Your task to perform on an android device: Search for the best rated lawnmower on Lowes.com Image 0: 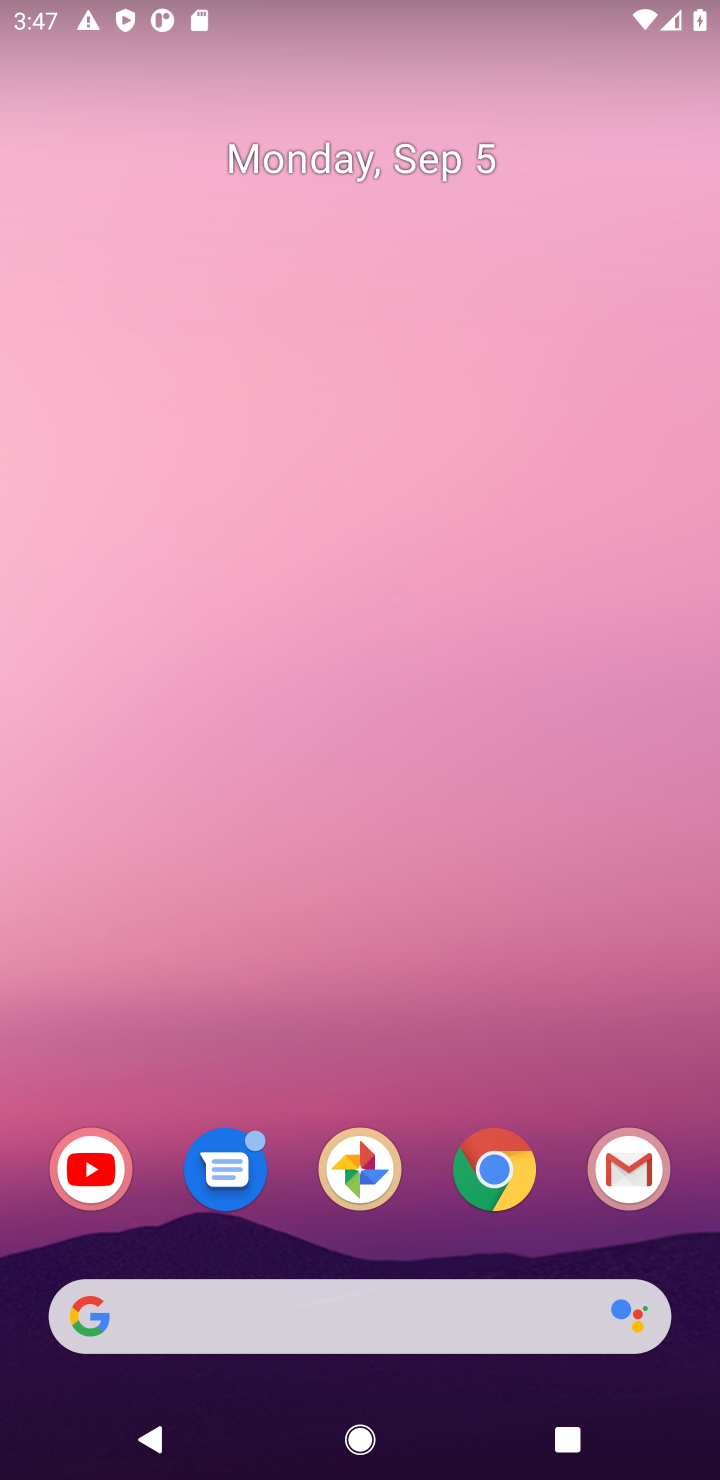
Step 0: click (500, 1188)
Your task to perform on an android device: Search for the best rated lawnmower on Lowes.com Image 1: 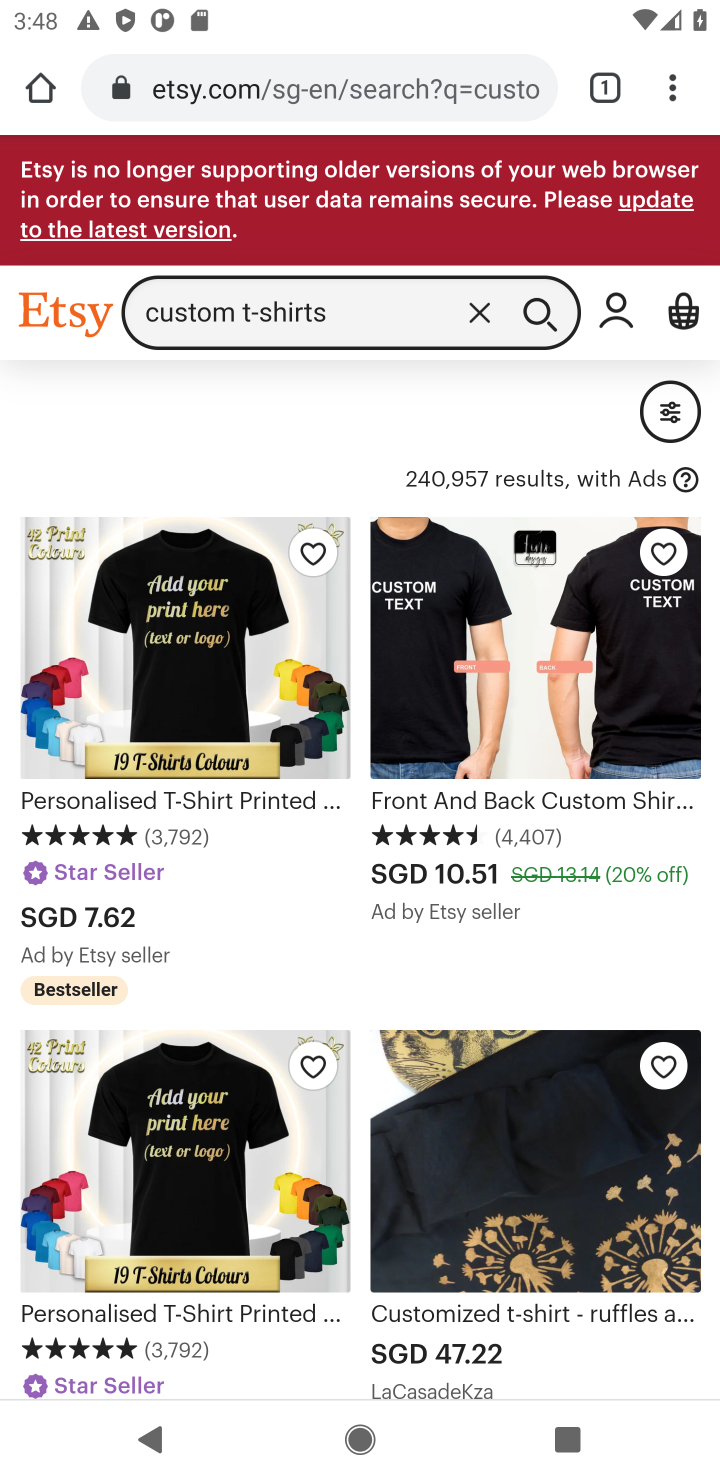
Step 1: click (377, 96)
Your task to perform on an android device: Search for the best rated lawnmower on Lowes.com Image 2: 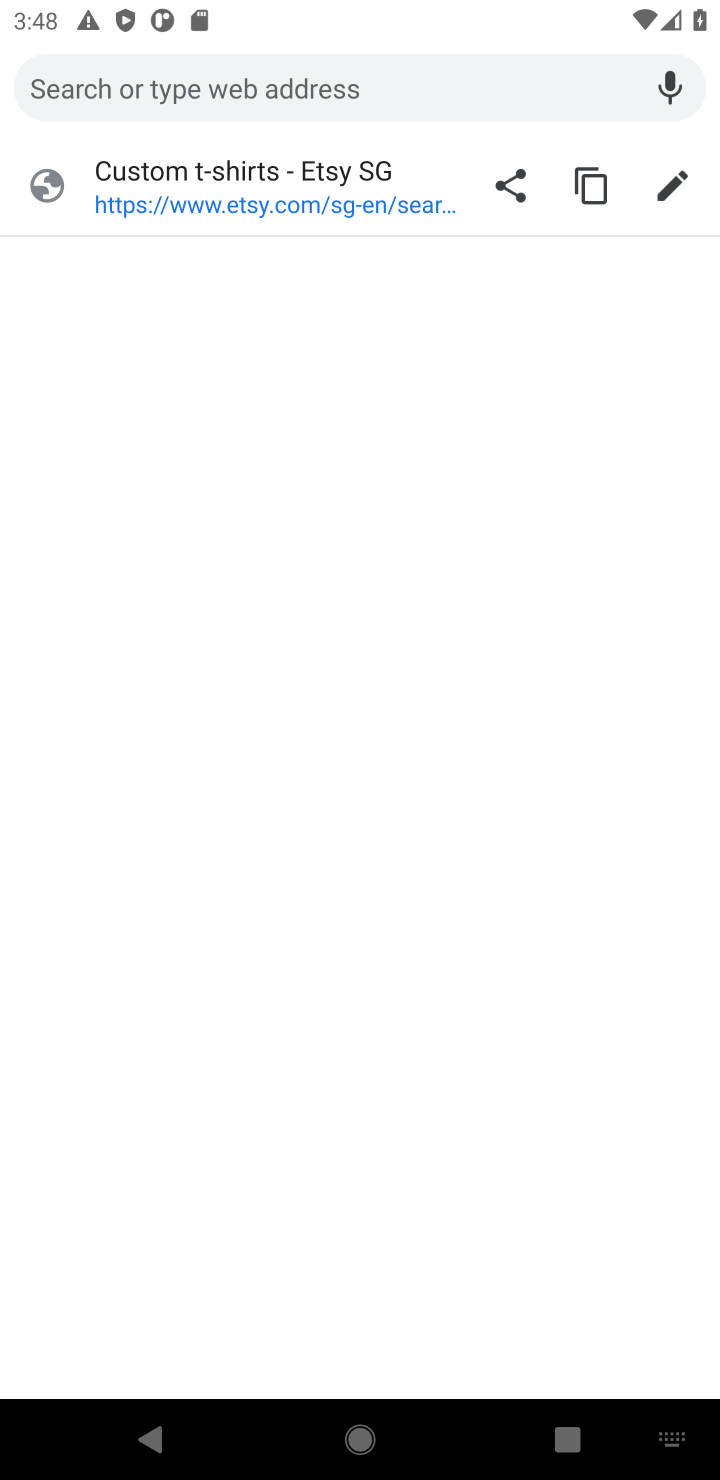
Step 2: type " Lowes.com"
Your task to perform on an android device: Search for the best rated lawnmower on Lowes.com Image 3: 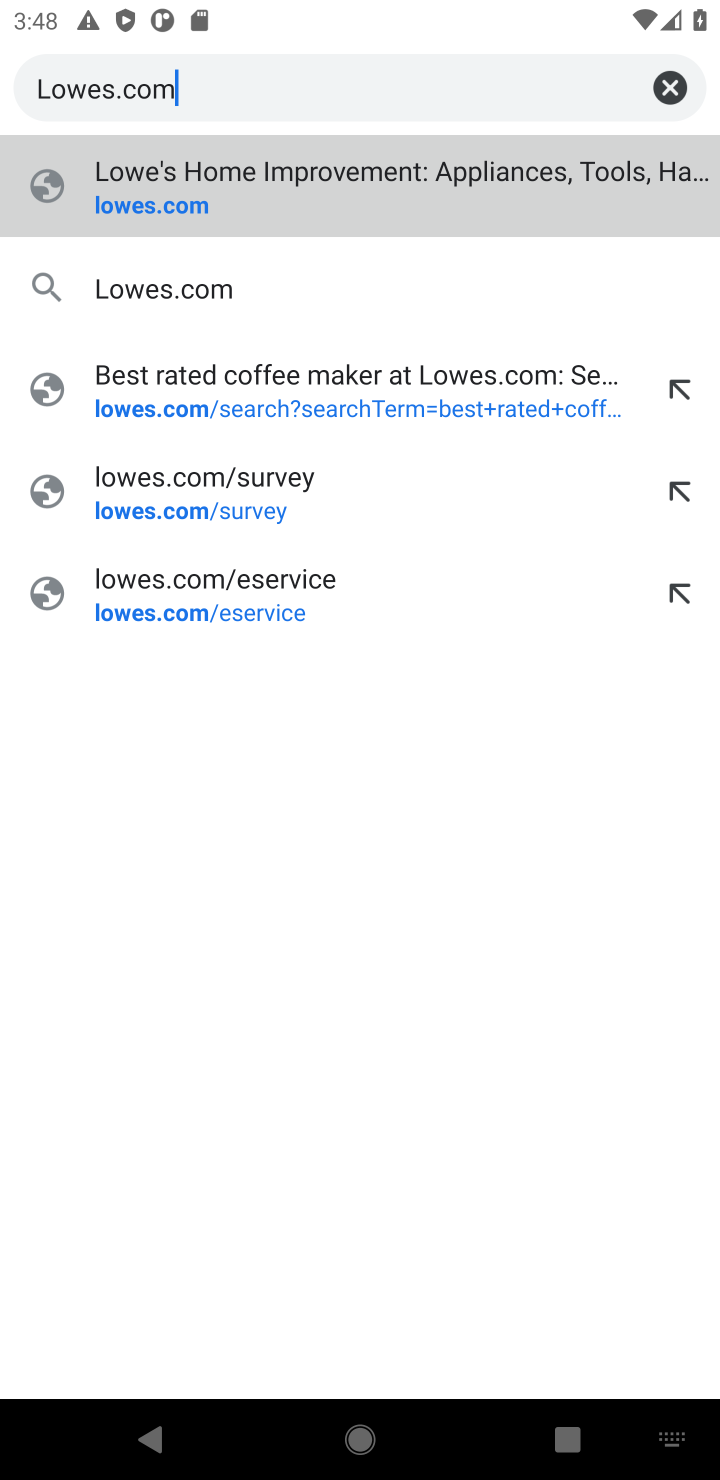
Step 3: click (176, 290)
Your task to perform on an android device: Search for the best rated lawnmower on Lowes.com Image 4: 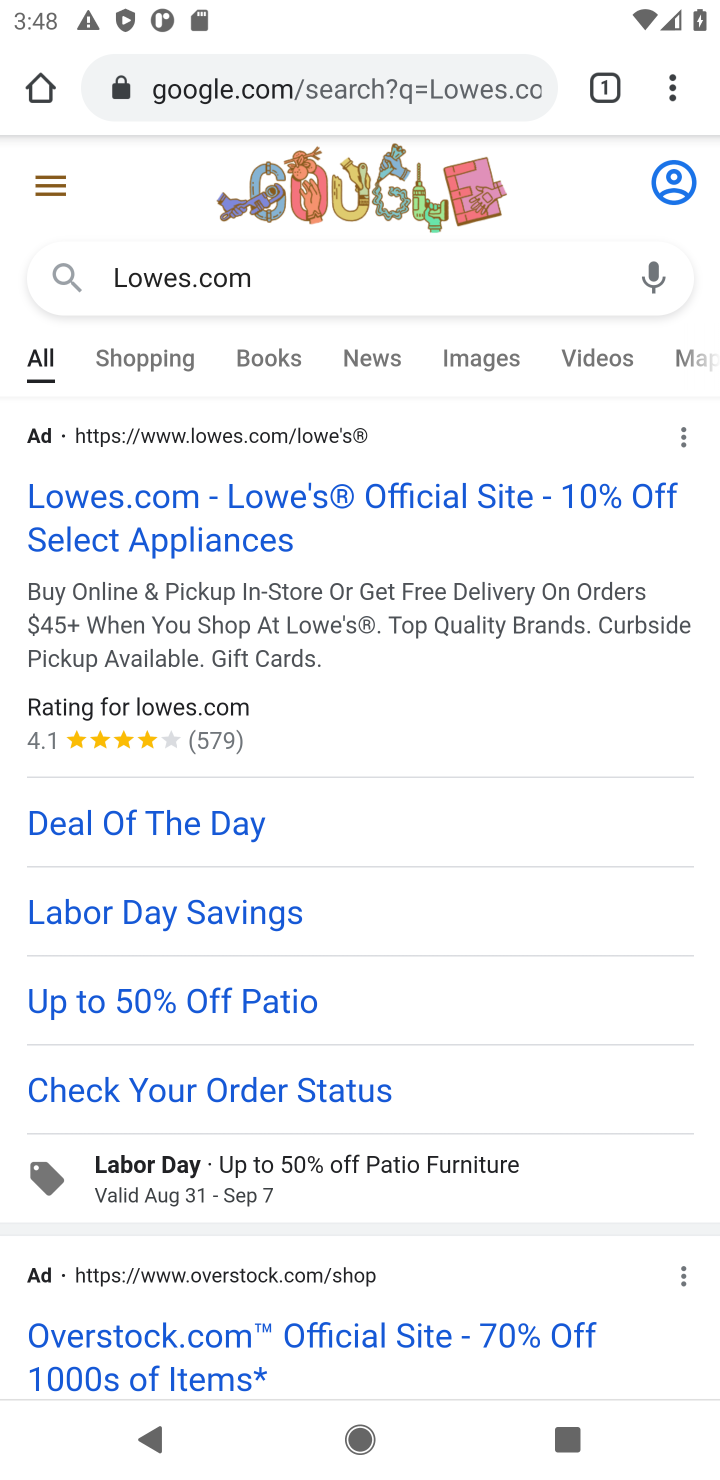
Step 4: click (141, 516)
Your task to perform on an android device: Search for the best rated lawnmower on Lowes.com Image 5: 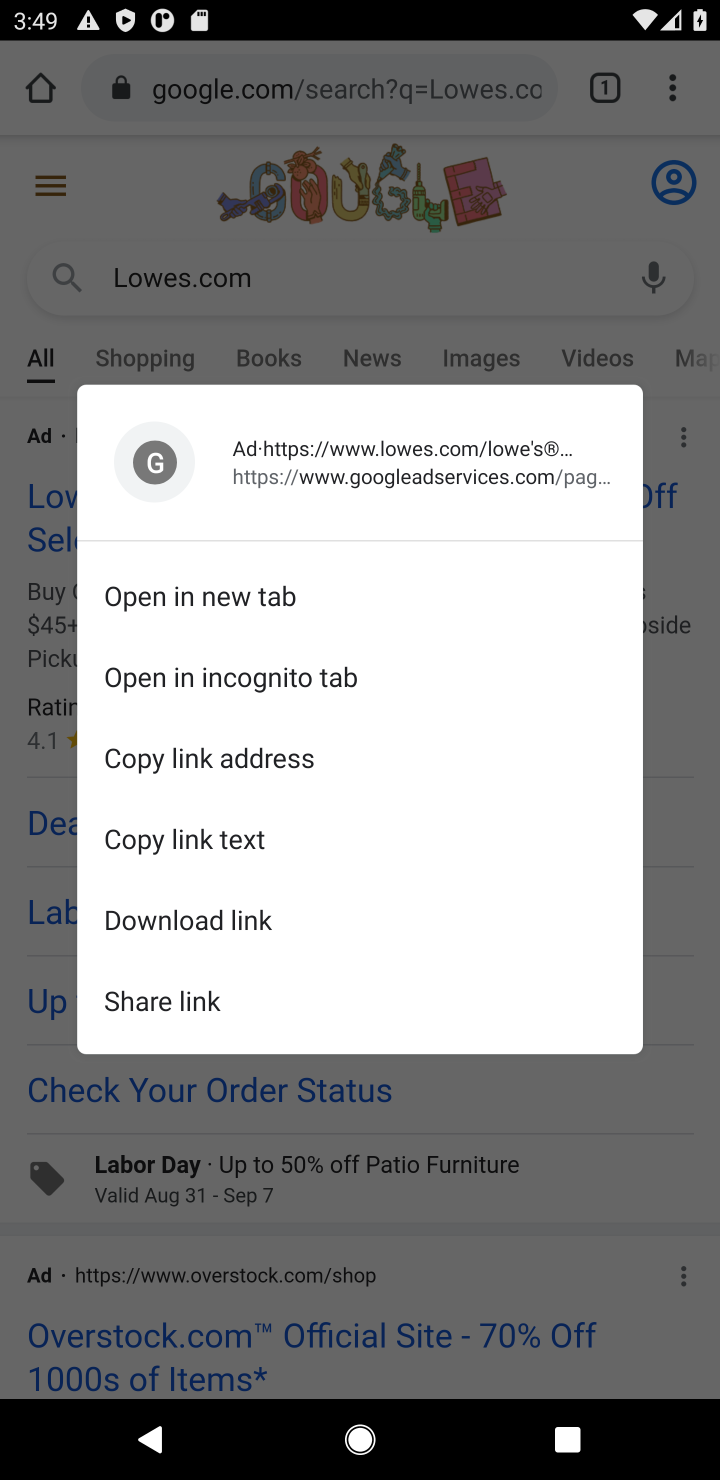
Step 5: click (44, 495)
Your task to perform on an android device: Search for the best rated lawnmower on Lowes.com Image 6: 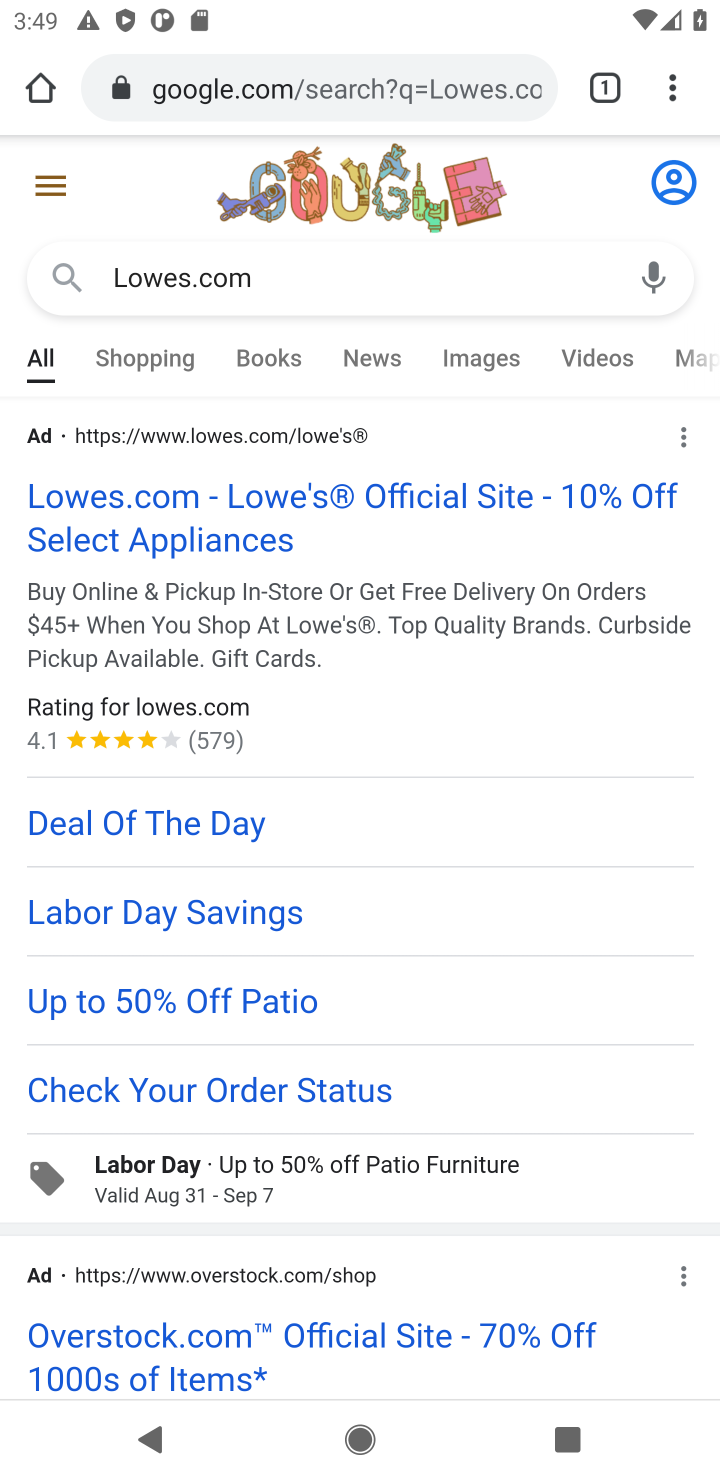
Step 6: click (120, 515)
Your task to perform on an android device: Search for the best rated lawnmower on Lowes.com Image 7: 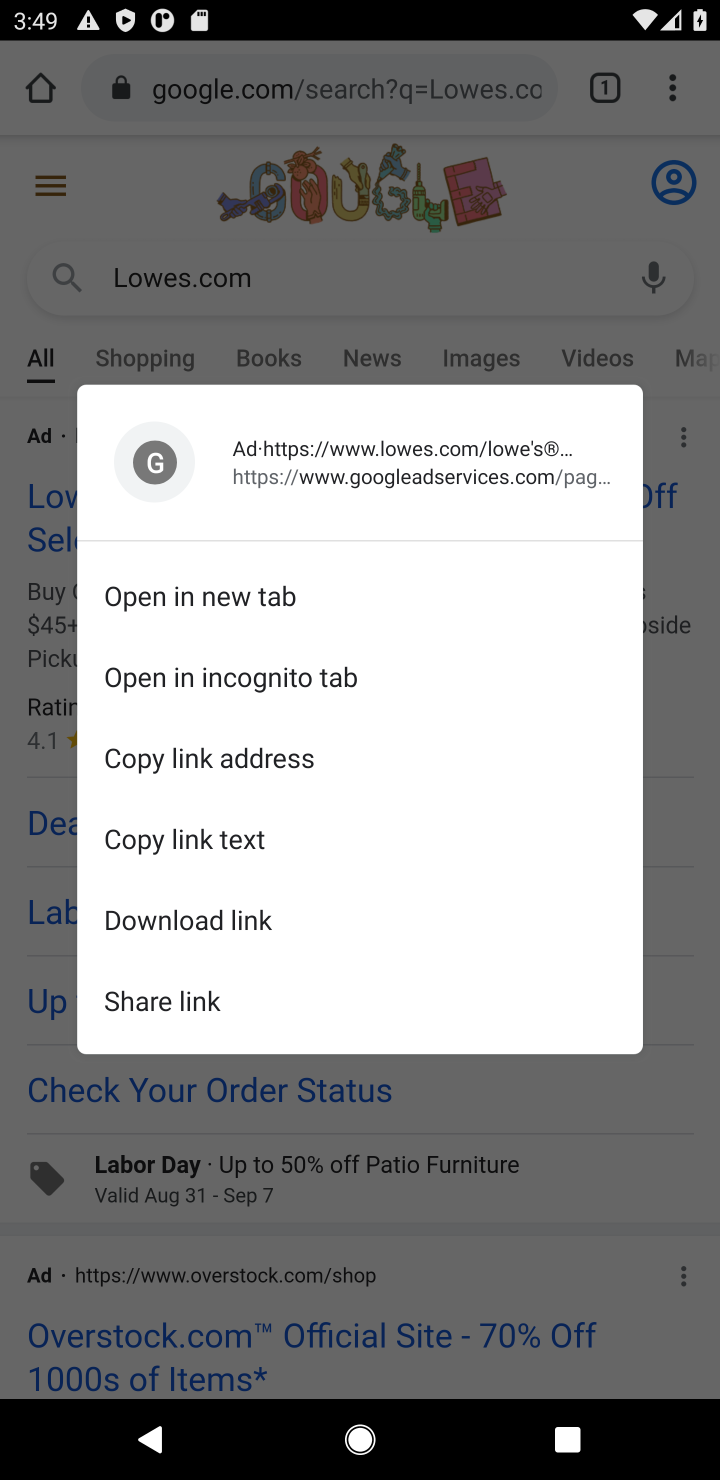
Step 7: click (43, 506)
Your task to perform on an android device: Search for the best rated lawnmower on Lowes.com Image 8: 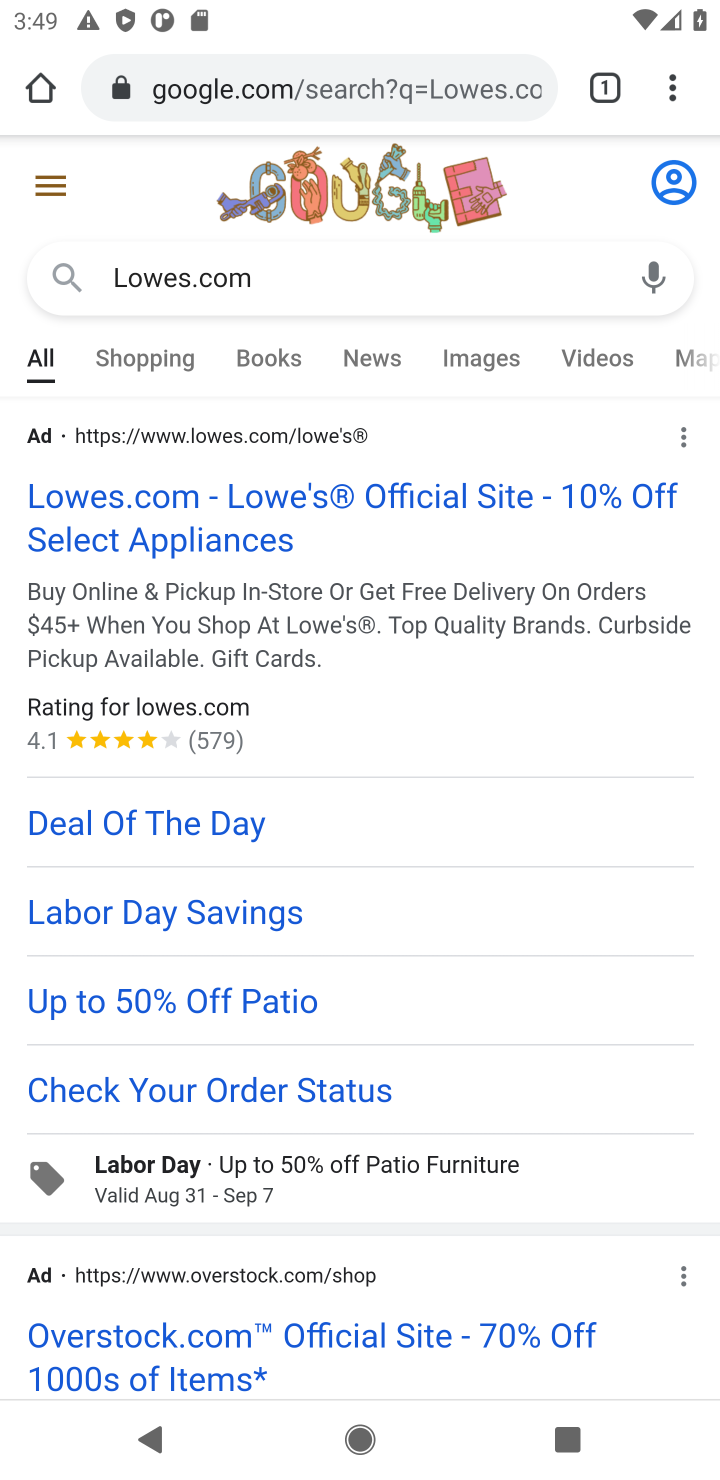
Step 8: click (116, 496)
Your task to perform on an android device: Search for the best rated lawnmower on Lowes.com Image 9: 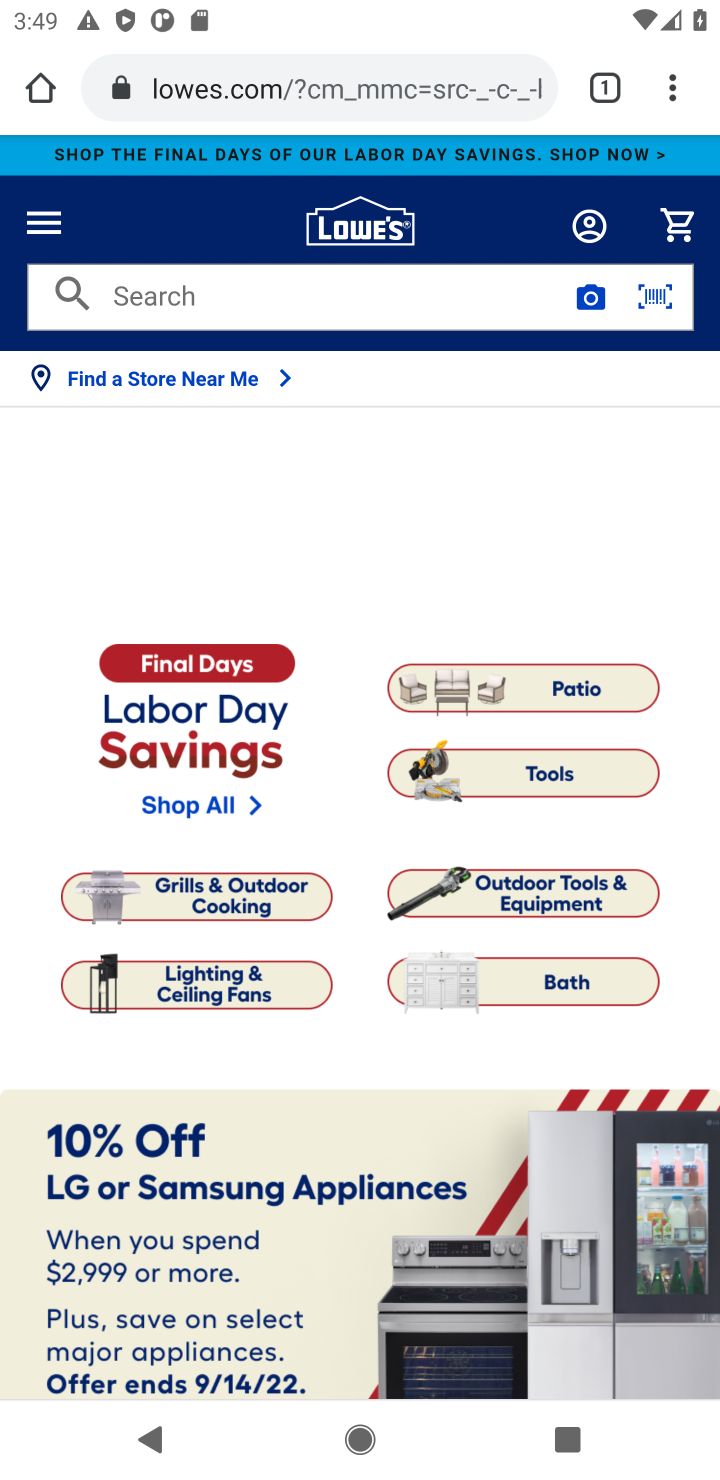
Step 9: click (144, 307)
Your task to perform on an android device: Search for the best rated lawnmower on Lowes.com Image 10: 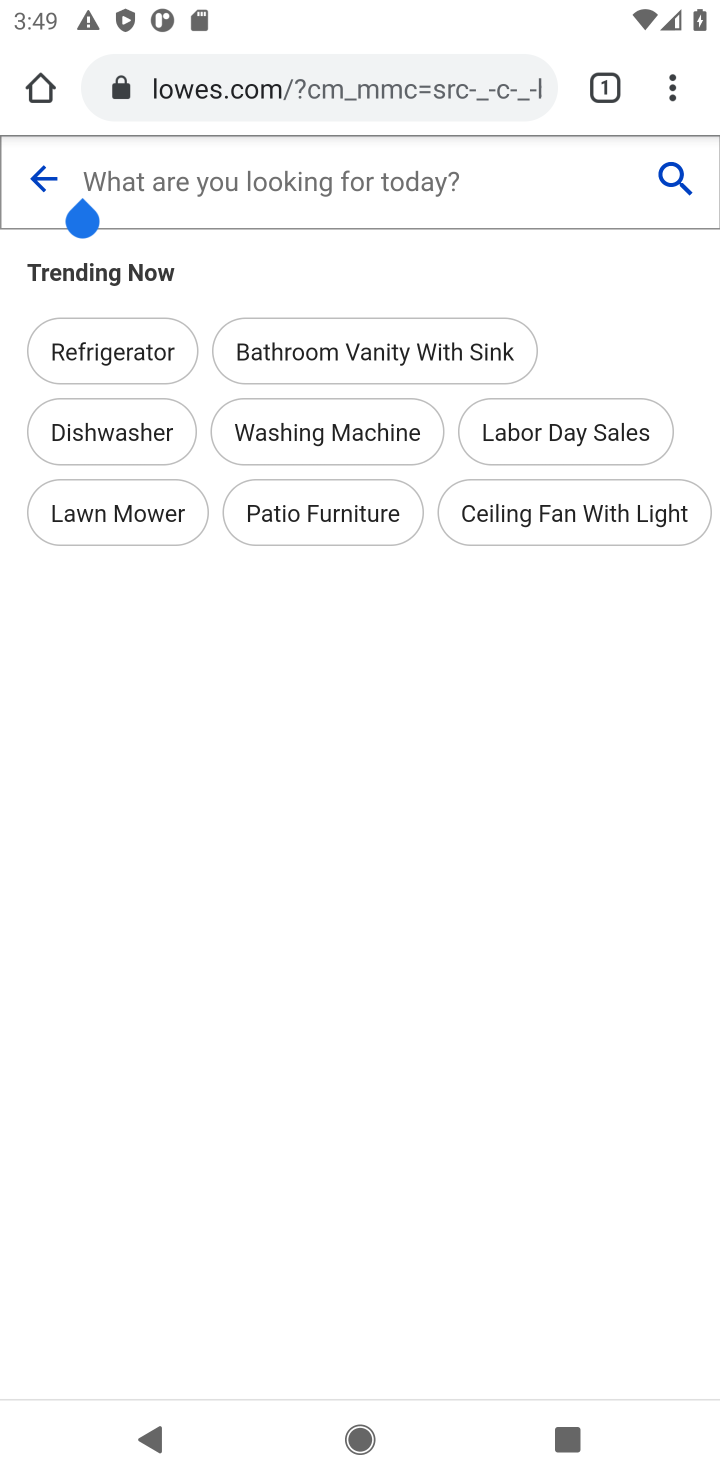
Step 10: type " best rated lawnmower"
Your task to perform on an android device: Search for the best rated lawnmower on Lowes.com Image 11: 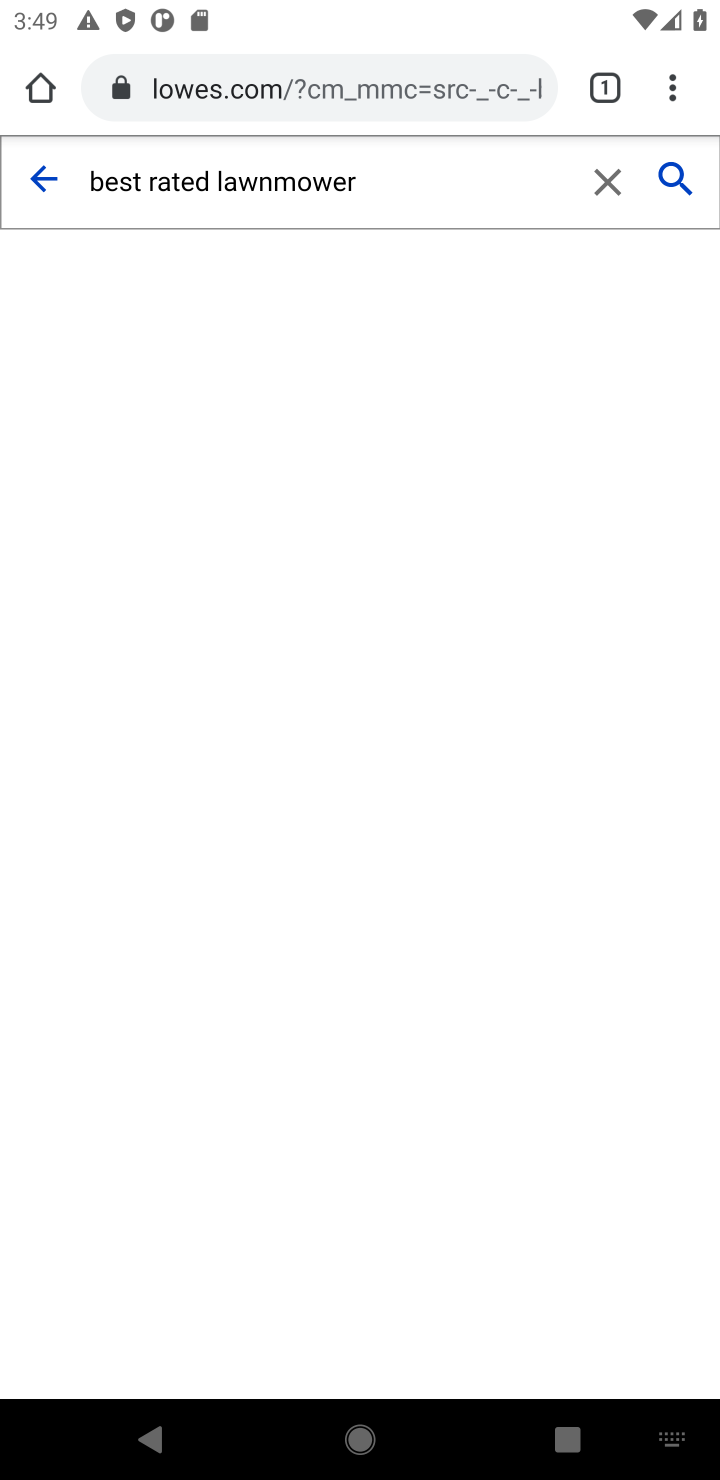
Step 11: click (673, 182)
Your task to perform on an android device: Search for the best rated lawnmower on Lowes.com Image 12: 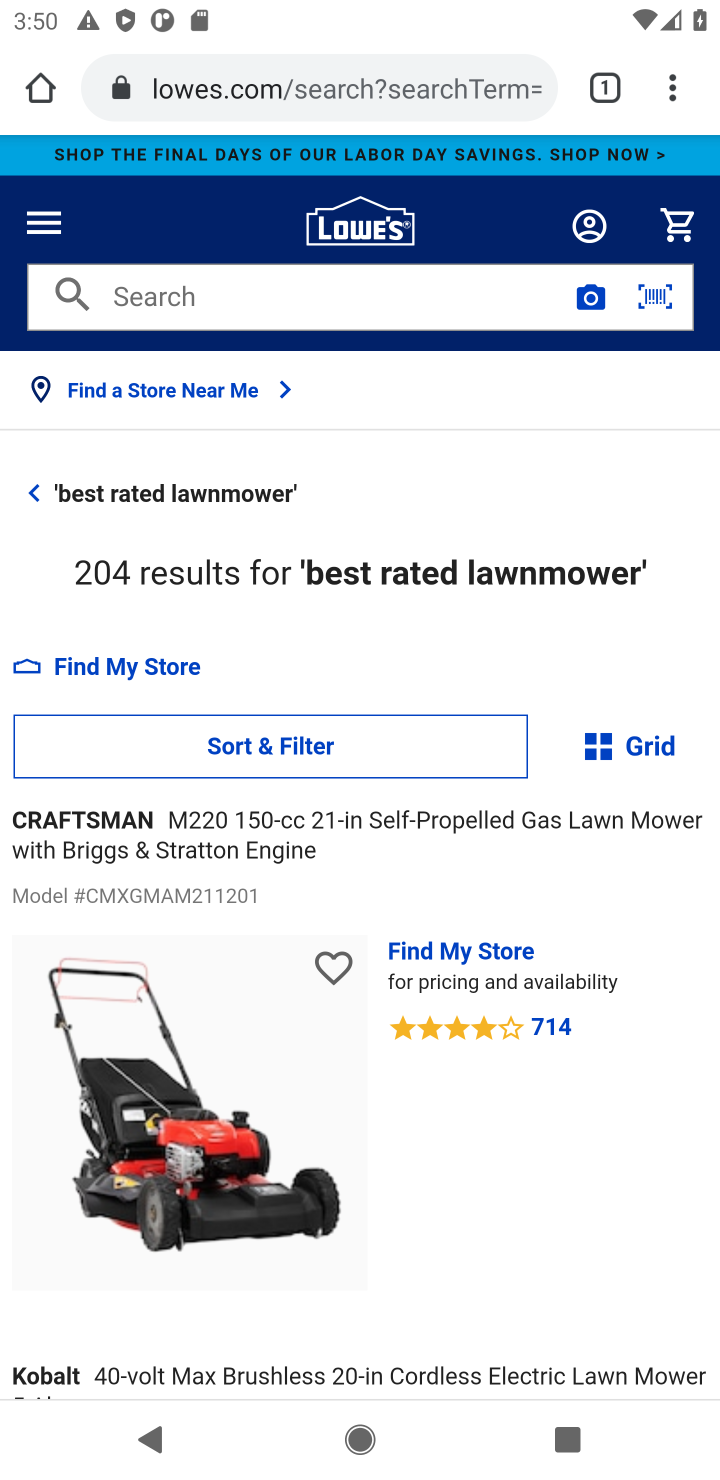
Step 12: task complete